Your task to perform on an android device: check android version Image 0: 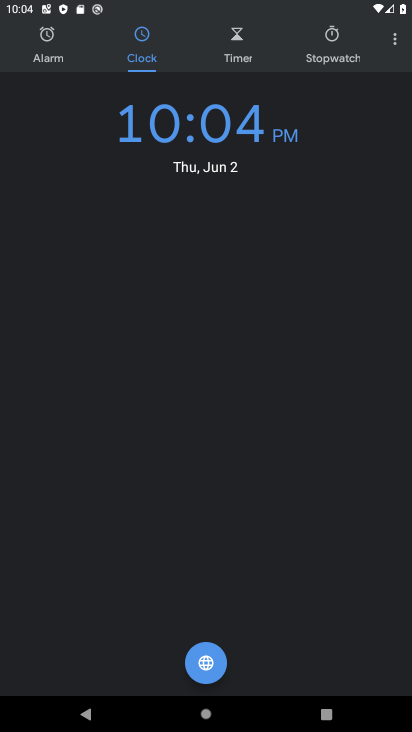
Step 0: press home button
Your task to perform on an android device: check android version Image 1: 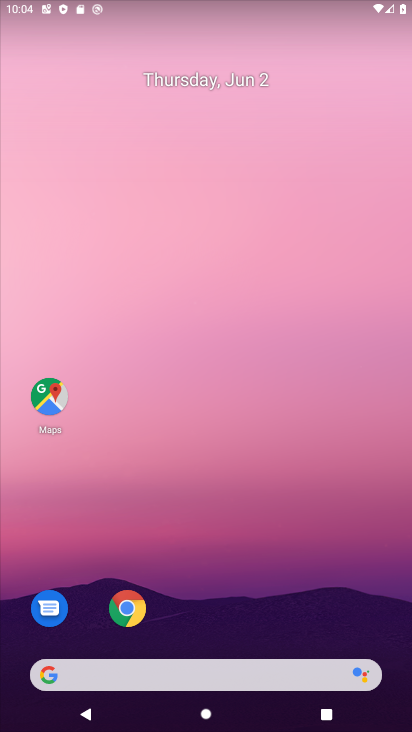
Step 1: drag from (194, 565) to (295, 107)
Your task to perform on an android device: check android version Image 2: 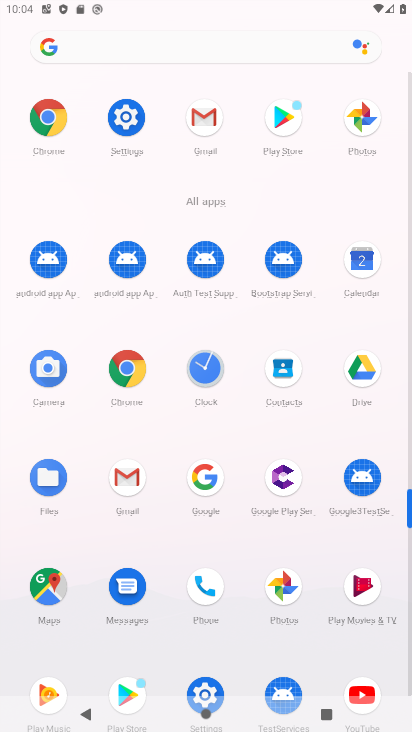
Step 2: drag from (144, 656) to (247, 303)
Your task to perform on an android device: check android version Image 3: 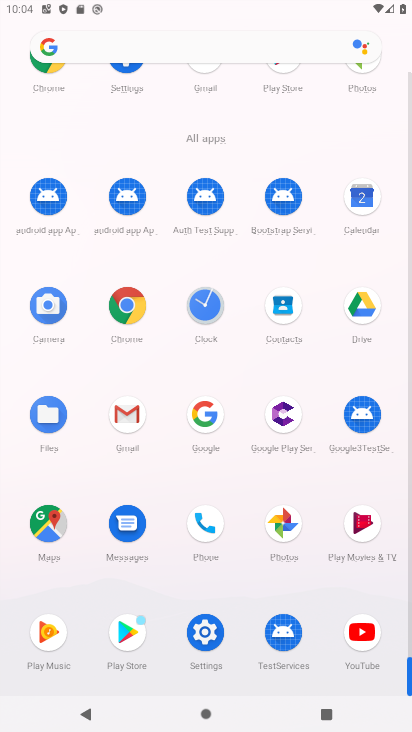
Step 3: click (205, 623)
Your task to perform on an android device: check android version Image 4: 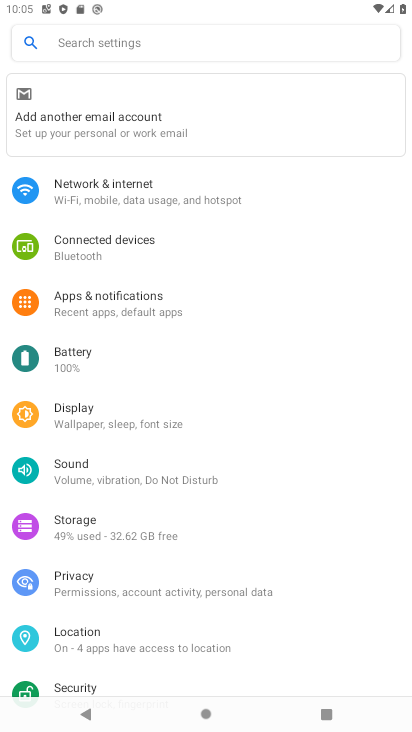
Step 4: drag from (157, 566) to (250, 167)
Your task to perform on an android device: check android version Image 5: 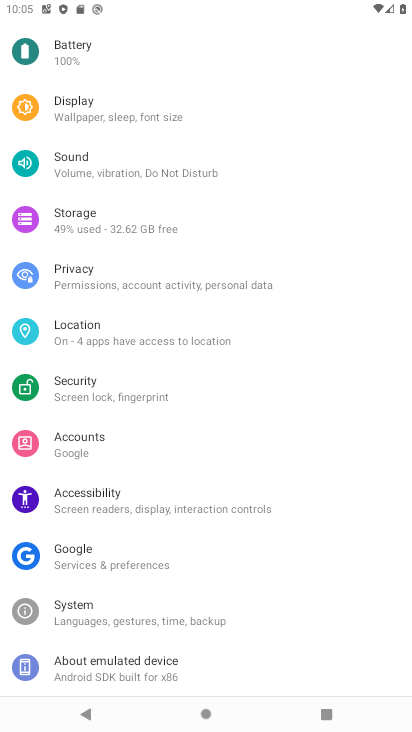
Step 5: drag from (141, 659) to (244, 383)
Your task to perform on an android device: check android version Image 6: 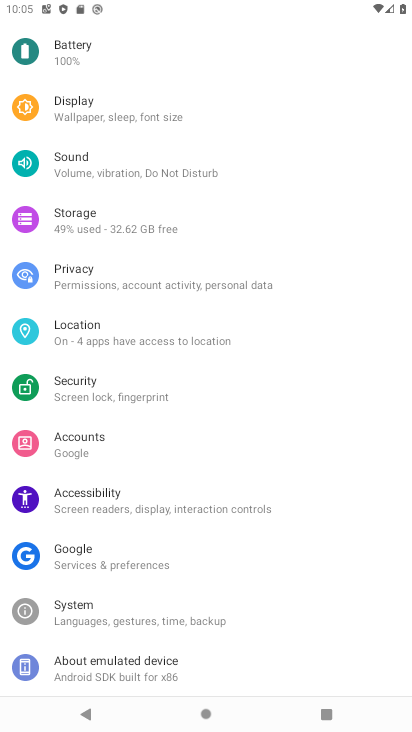
Step 6: click (131, 677)
Your task to perform on an android device: check android version Image 7: 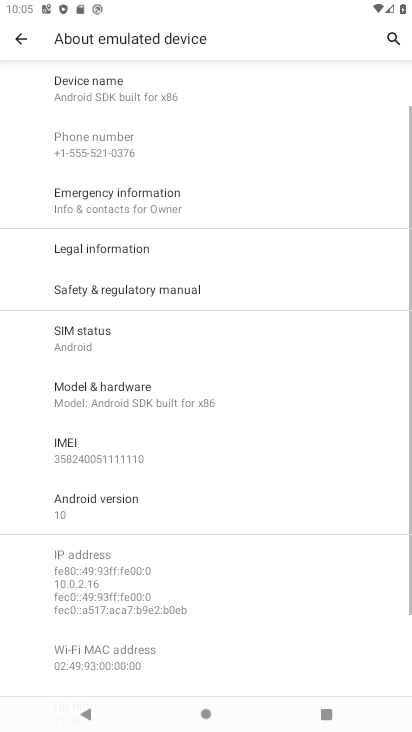
Step 7: click (172, 523)
Your task to perform on an android device: check android version Image 8: 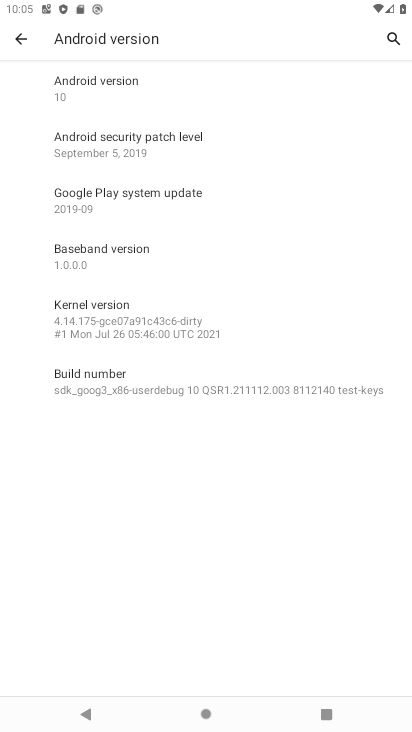
Step 8: task complete